Your task to perform on an android device: toggle sleep mode Image 0: 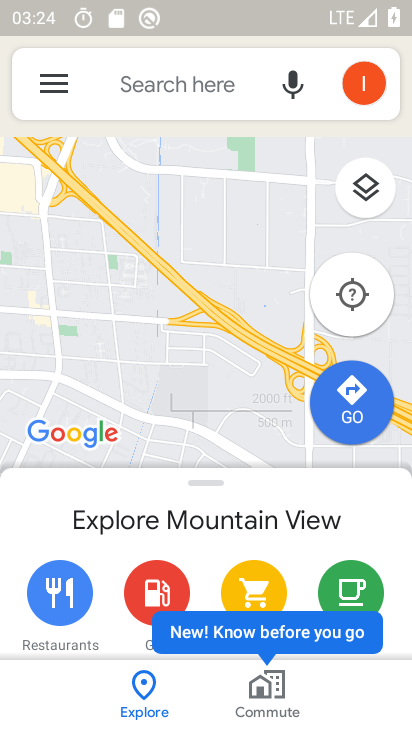
Step 0: press home button
Your task to perform on an android device: toggle sleep mode Image 1: 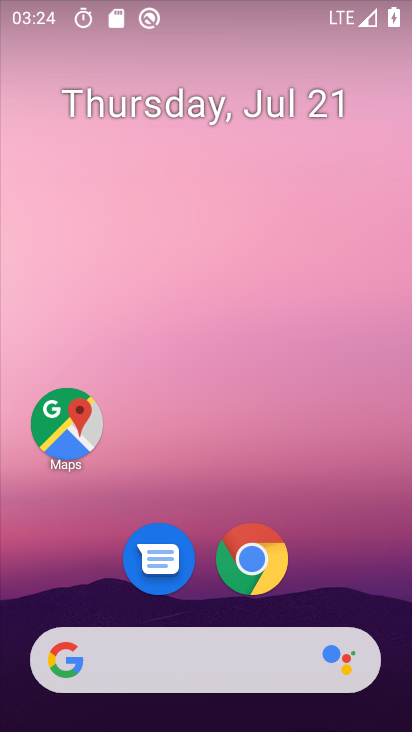
Step 1: drag from (385, 533) to (383, 63)
Your task to perform on an android device: toggle sleep mode Image 2: 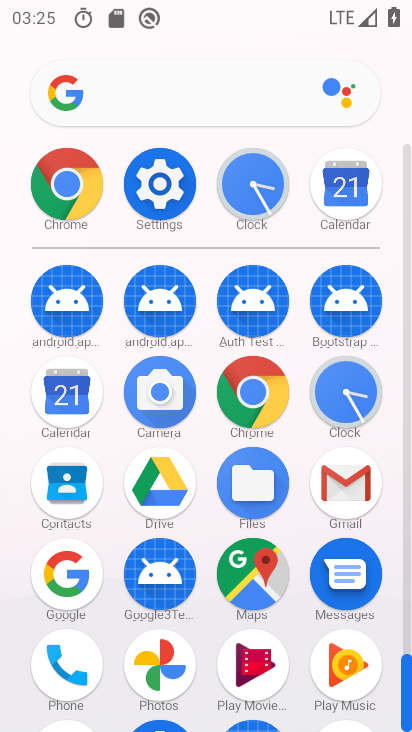
Step 2: click (177, 195)
Your task to perform on an android device: toggle sleep mode Image 3: 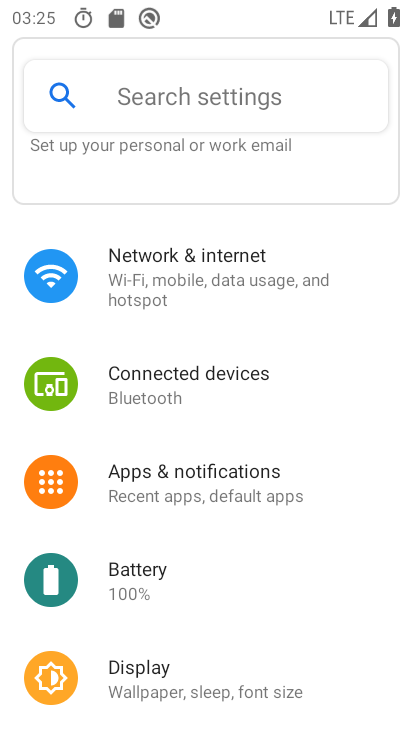
Step 3: drag from (303, 581) to (303, 513)
Your task to perform on an android device: toggle sleep mode Image 4: 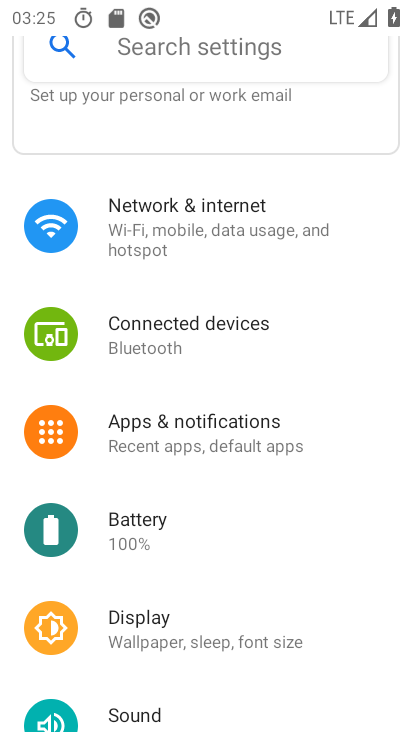
Step 4: drag from (336, 568) to (336, 473)
Your task to perform on an android device: toggle sleep mode Image 5: 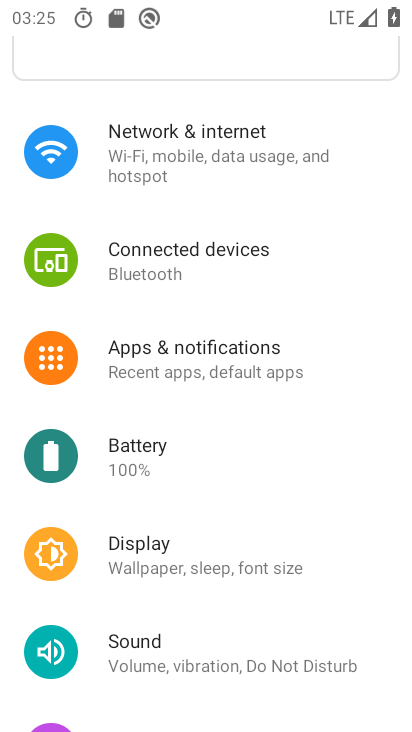
Step 5: drag from (358, 562) to (350, 481)
Your task to perform on an android device: toggle sleep mode Image 6: 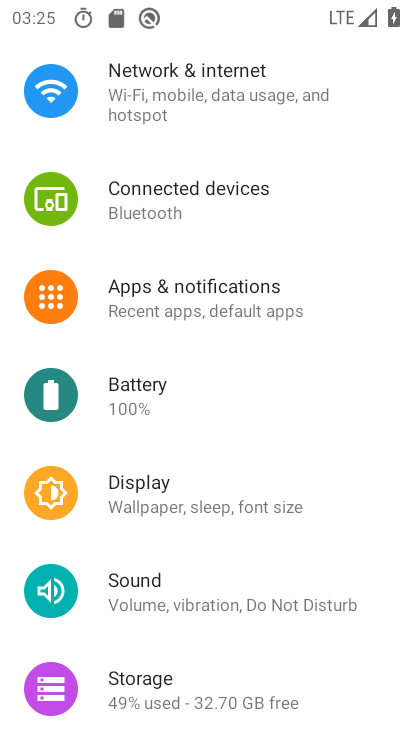
Step 6: drag from (349, 551) to (348, 489)
Your task to perform on an android device: toggle sleep mode Image 7: 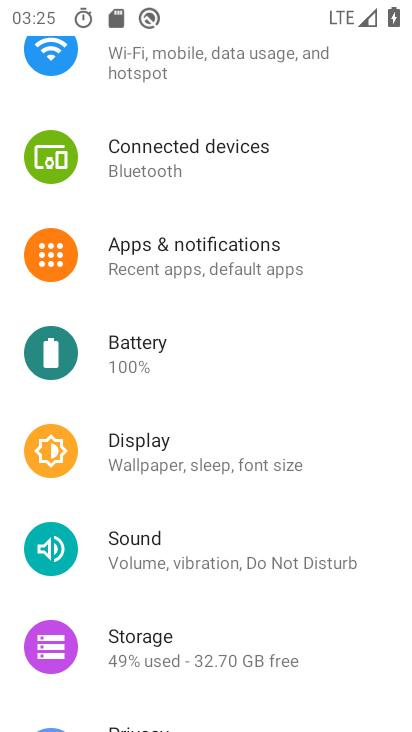
Step 7: drag from (355, 527) to (355, 481)
Your task to perform on an android device: toggle sleep mode Image 8: 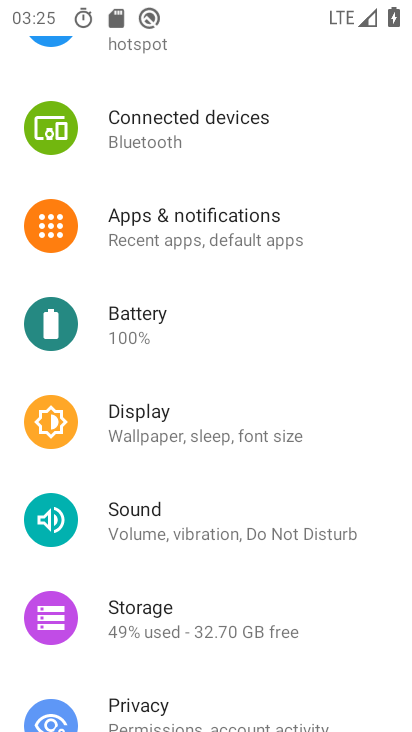
Step 8: drag from (355, 565) to (355, 490)
Your task to perform on an android device: toggle sleep mode Image 9: 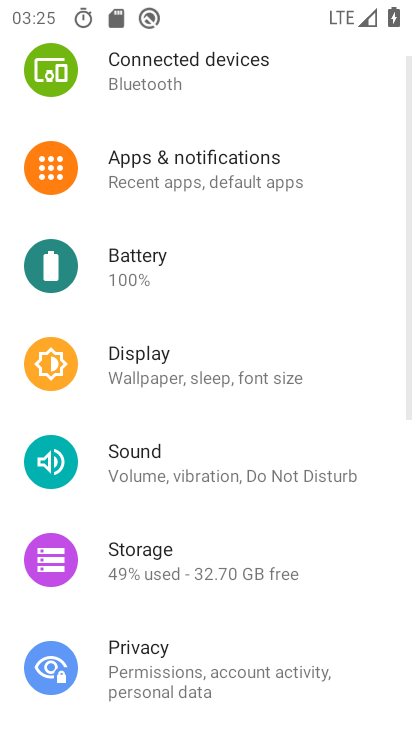
Step 9: drag from (348, 559) to (346, 492)
Your task to perform on an android device: toggle sleep mode Image 10: 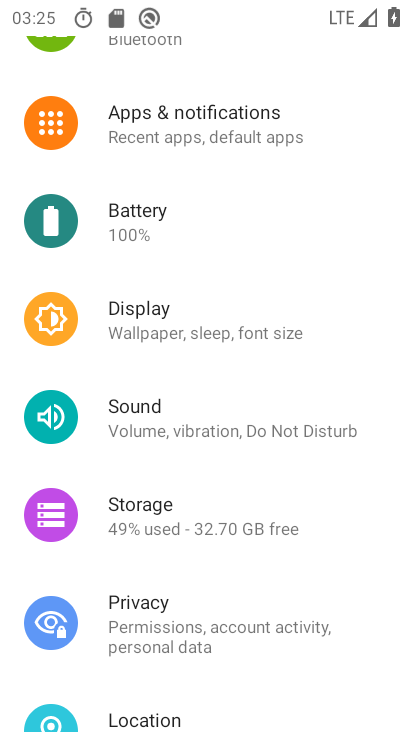
Step 10: drag from (343, 533) to (343, 454)
Your task to perform on an android device: toggle sleep mode Image 11: 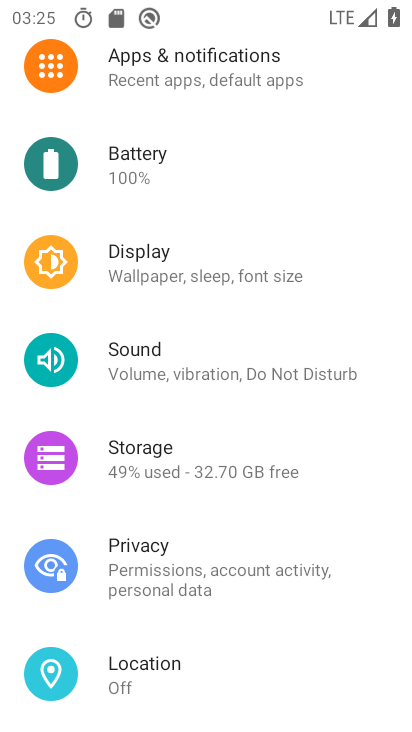
Step 11: click (311, 283)
Your task to perform on an android device: toggle sleep mode Image 12: 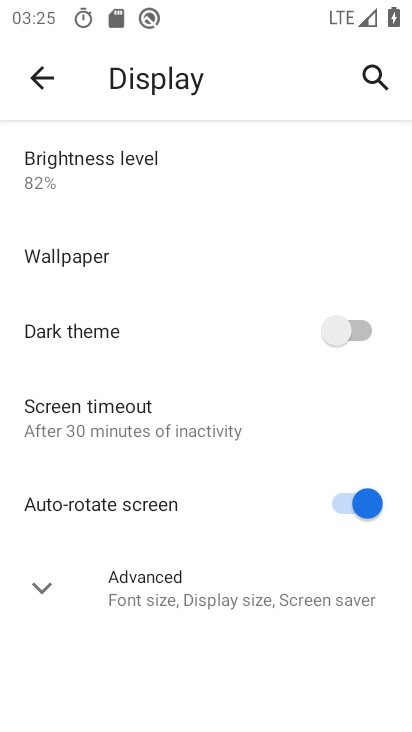
Step 12: click (290, 583)
Your task to perform on an android device: toggle sleep mode Image 13: 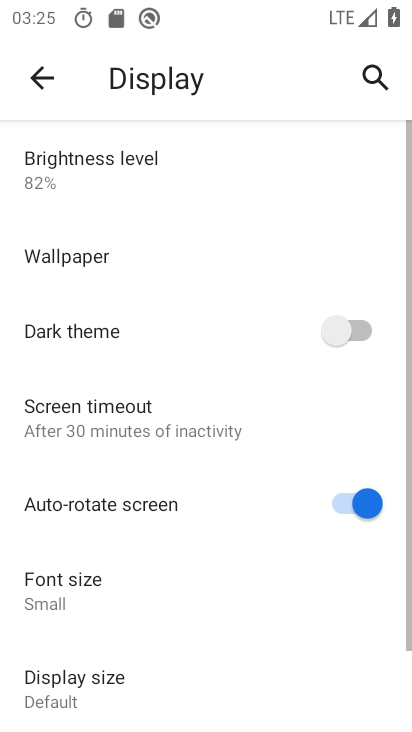
Step 13: task complete